Your task to perform on an android device: Go to battery settings Image 0: 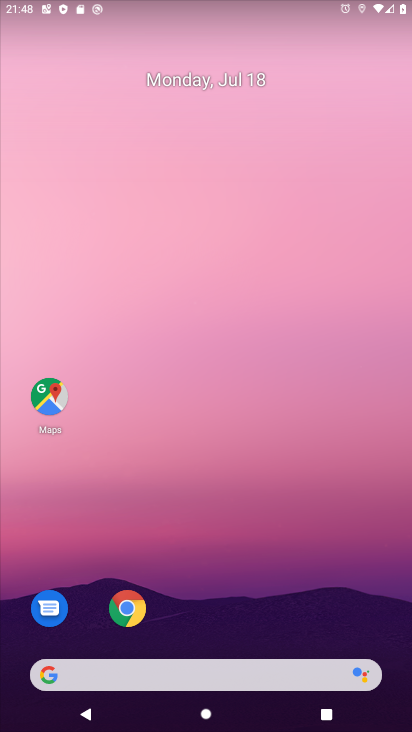
Step 0: drag from (77, 547) to (216, 95)
Your task to perform on an android device: Go to battery settings Image 1: 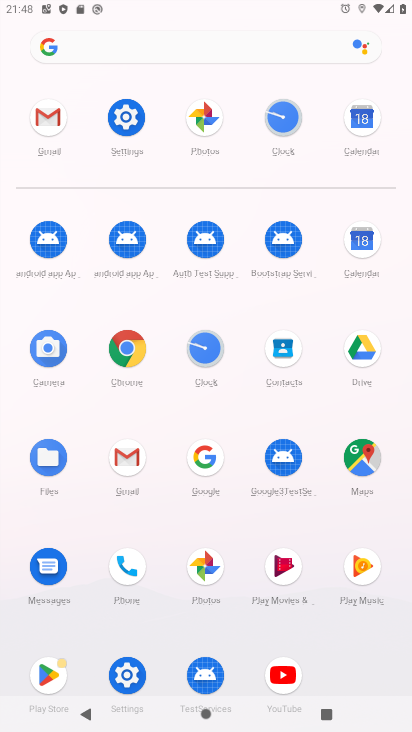
Step 1: click (127, 681)
Your task to perform on an android device: Go to battery settings Image 2: 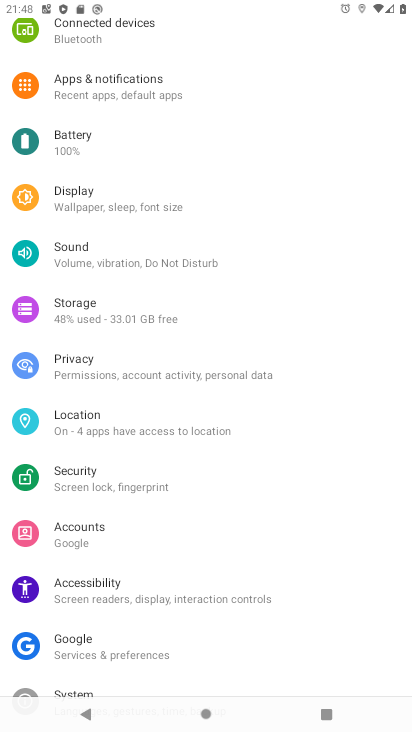
Step 2: click (97, 125)
Your task to perform on an android device: Go to battery settings Image 3: 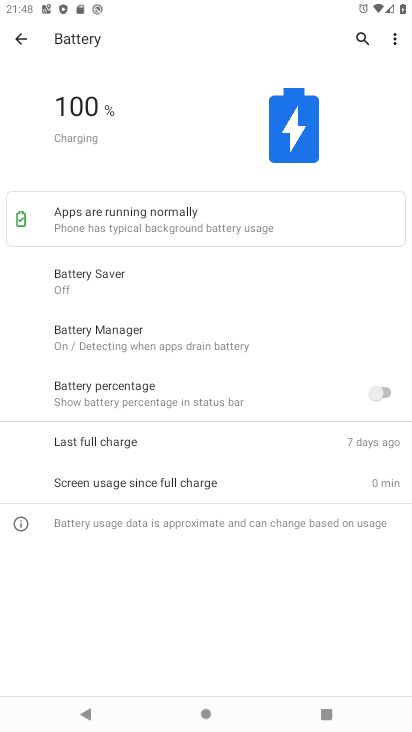
Step 3: task complete